Your task to perform on an android device: Empty the shopping cart on walmart.com. Add "logitech g502" to the cart on walmart.com Image 0: 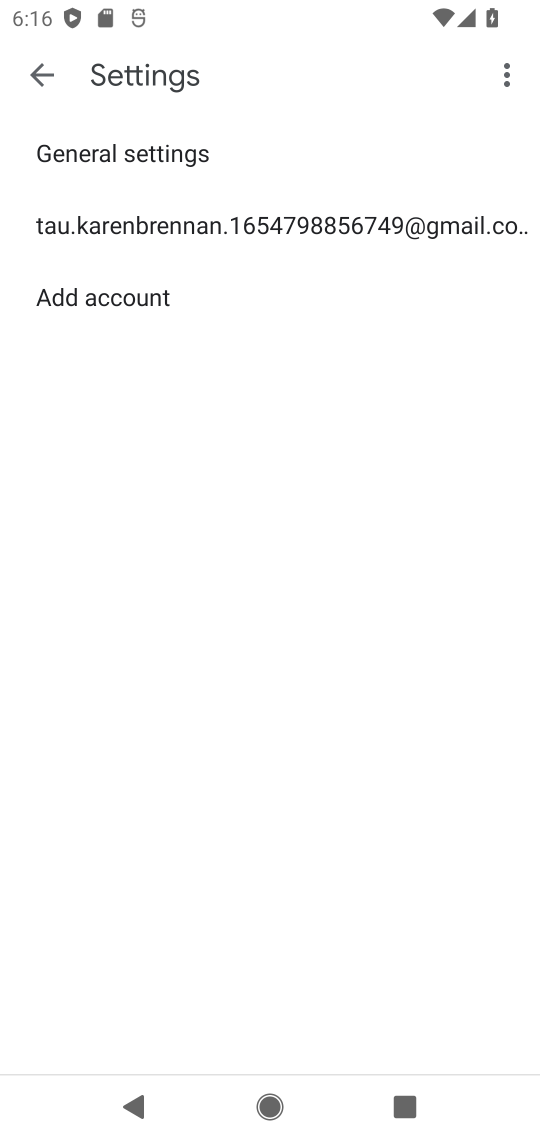
Step 0: press home button
Your task to perform on an android device: Empty the shopping cart on walmart.com. Add "logitech g502" to the cart on walmart.com Image 1: 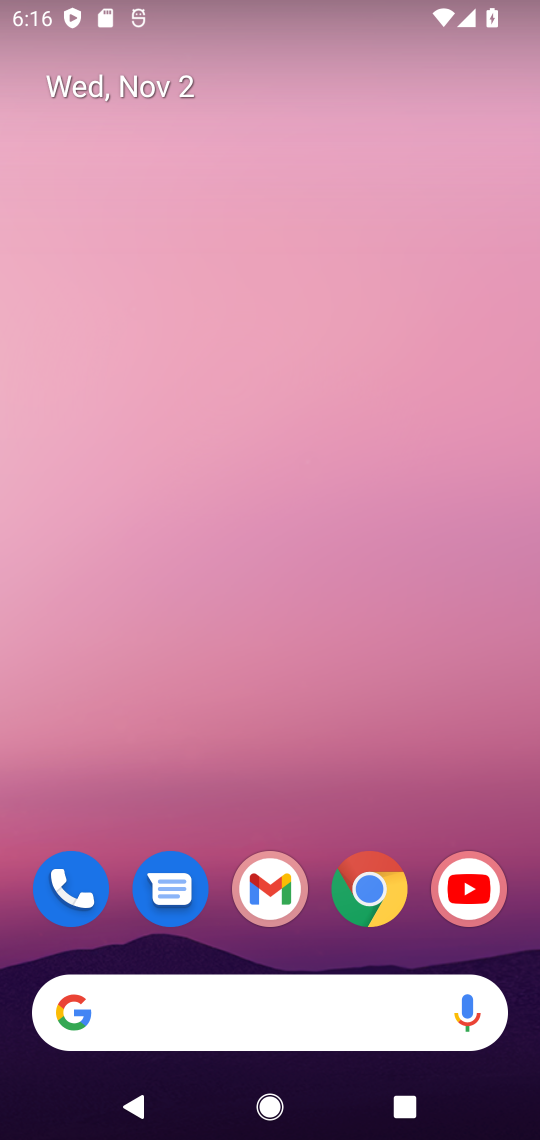
Step 1: click (379, 886)
Your task to perform on an android device: Empty the shopping cart on walmart.com. Add "logitech g502" to the cart on walmart.com Image 2: 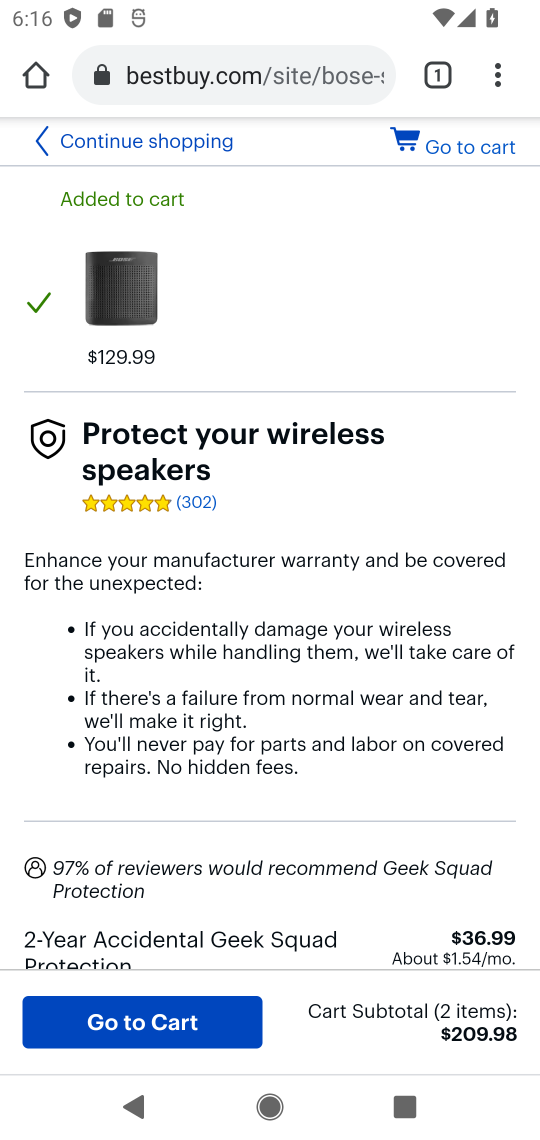
Step 2: click (200, 63)
Your task to perform on an android device: Empty the shopping cart on walmart.com. Add "logitech g502" to the cart on walmart.com Image 3: 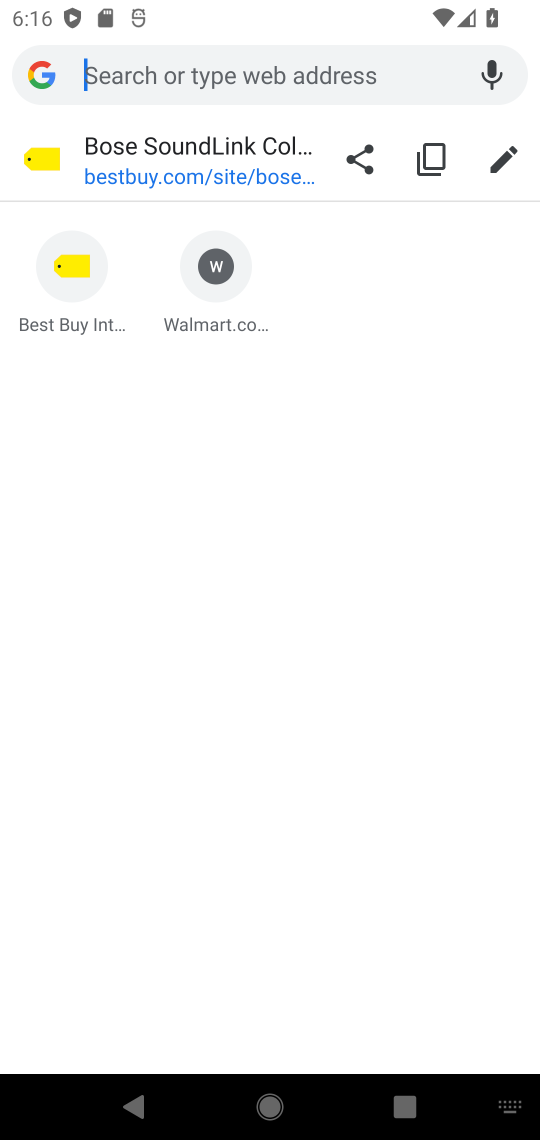
Step 3: type "walmart.com"
Your task to perform on an android device: Empty the shopping cart on walmart.com. Add "logitech g502" to the cart on walmart.com Image 4: 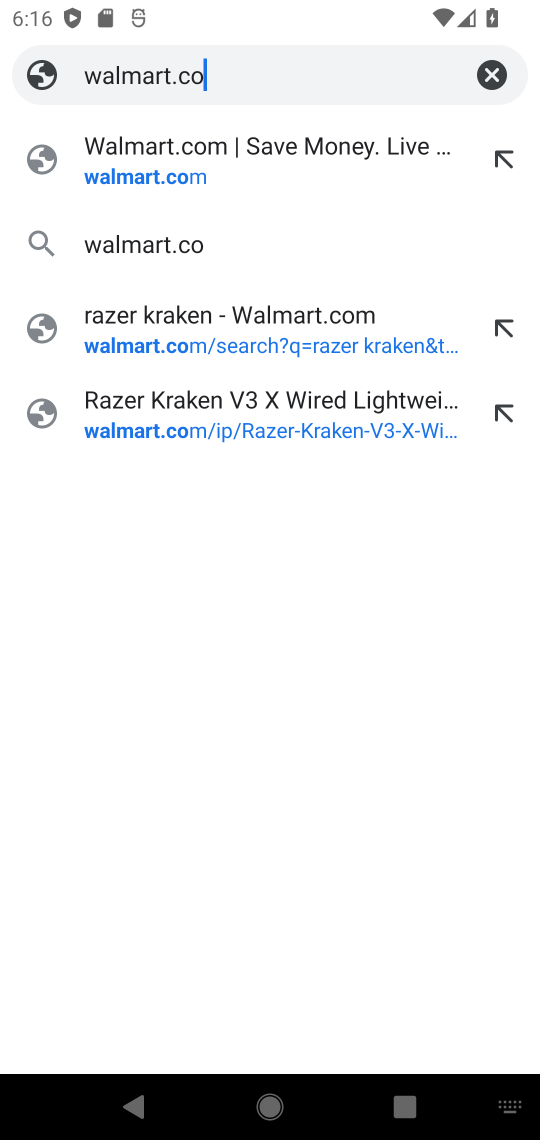
Step 4: press enter
Your task to perform on an android device: Empty the shopping cart on walmart.com. Add "logitech g502" to the cart on walmart.com Image 5: 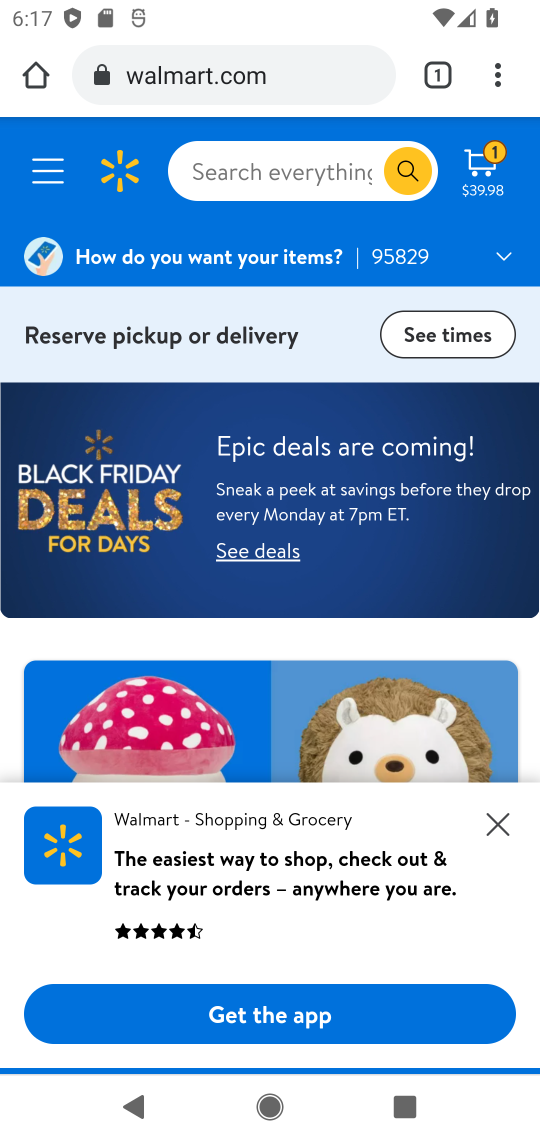
Step 5: click (480, 179)
Your task to perform on an android device: Empty the shopping cart on walmart.com. Add "logitech g502" to the cart on walmart.com Image 6: 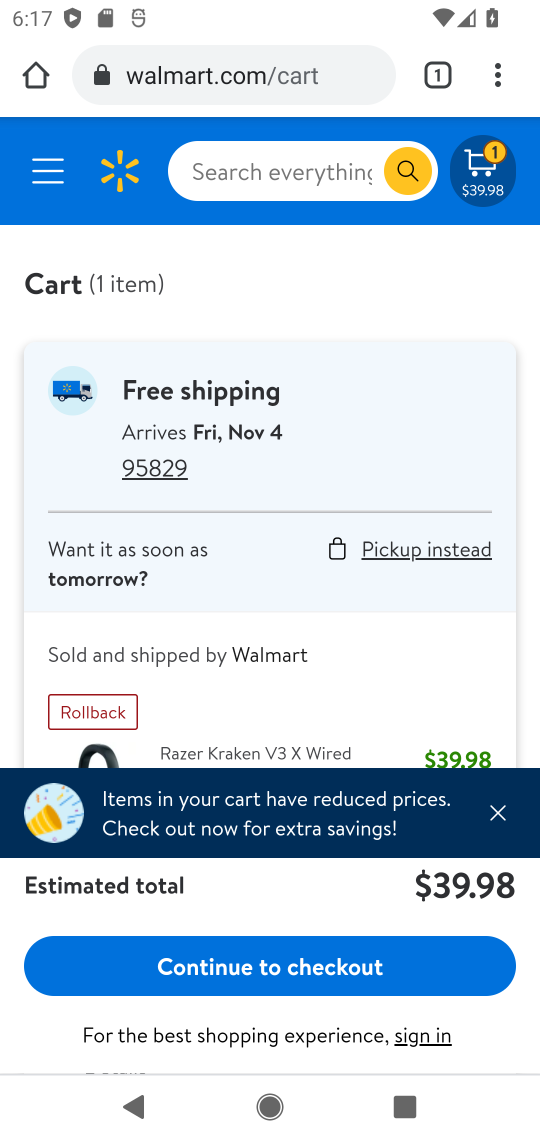
Step 6: click (504, 816)
Your task to perform on an android device: Empty the shopping cart on walmart.com. Add "logitech g502" to the cart on walmart.com Image 7: 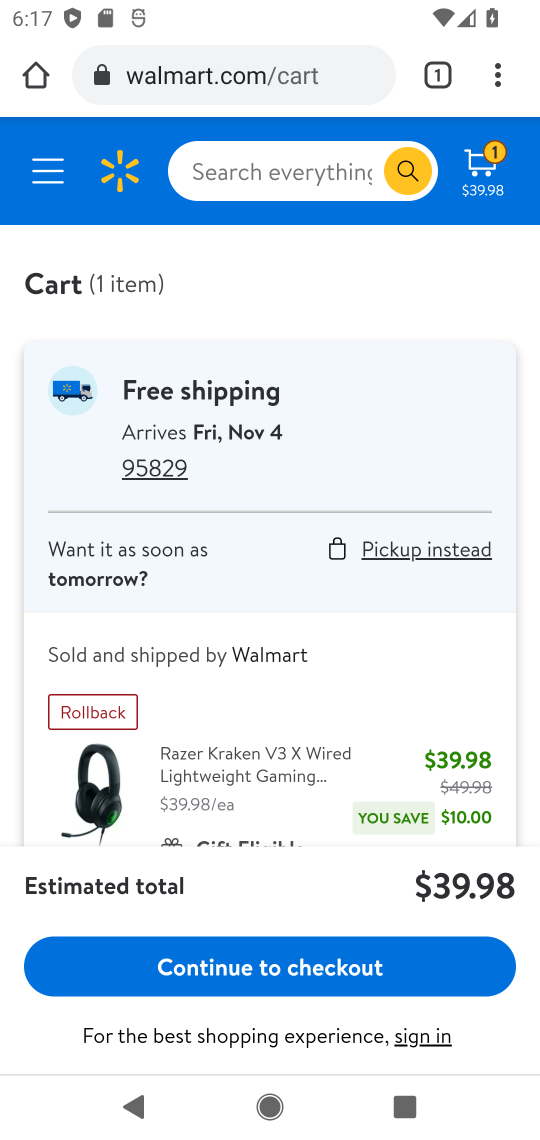
Step 7: drag from (314, 731) to (322, 332)
Your task to perform on an android device: Empty the shopping cart on walmart.com. Add "logitech g502" to the cart on walmart.com Image 8: 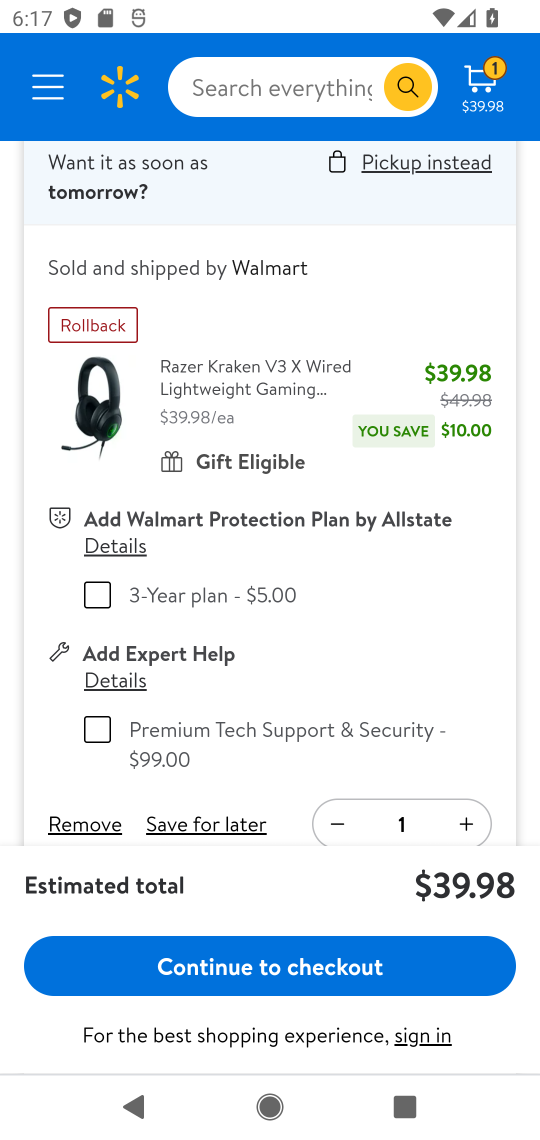
Step 8: drag from (394, 718) to (389, 479)
Your task to perform on an android device: Empty the shopping cart on walmart.com. Add "logitech g502" to the cart on walmart.com Image 9: 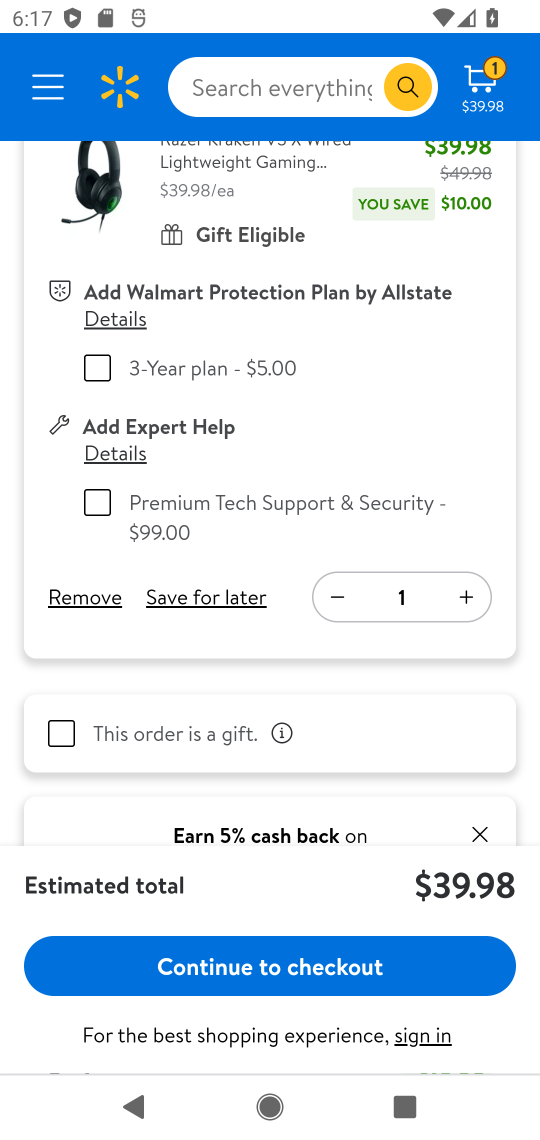
Step 9: click (83, 591)
Your task to perform on an android device: Empty the shopping cart on walmart.com. Add "logitech g502" to the cart on walmart.com Image 10: 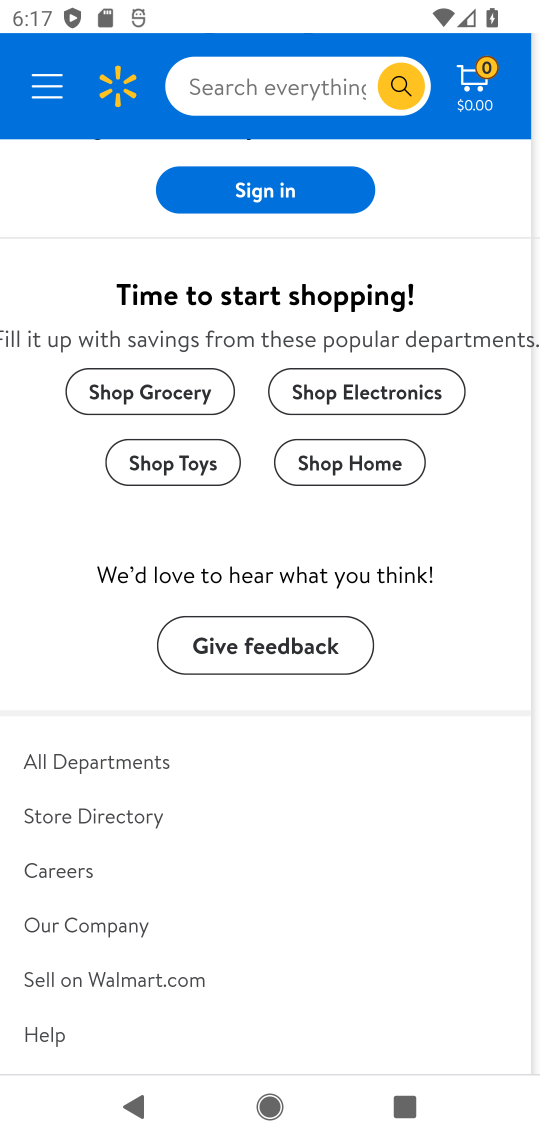
Step 10: click (300, 90)
Your task to perform on an android device: Empty the shopping cart on walmart.com. Add "logitech g502" to the cart on walmart.com Image 11: 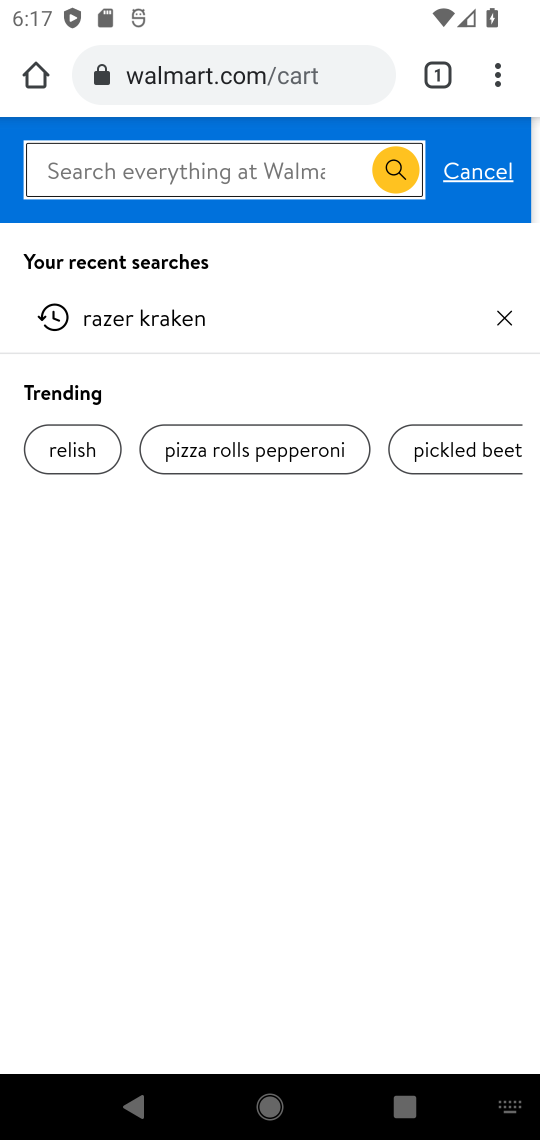
Step 11: type "logitech g502"
Your task to perform on an android device: Empty the shopping cart on walmart.com. Add "logitech g502" to the cart on walmart.com Image 12: 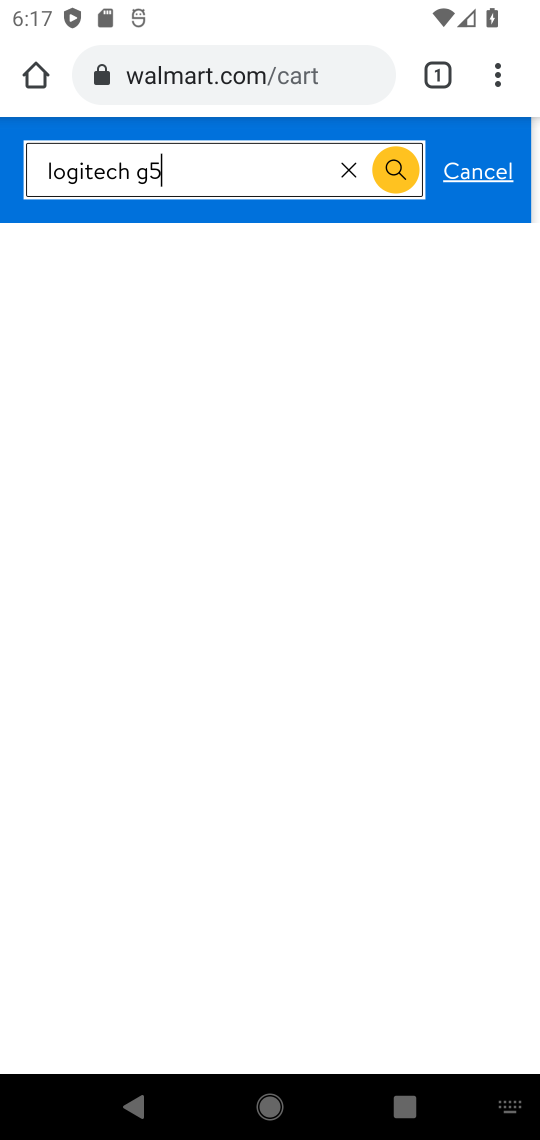
Step 12: press enter
Your task to perform on an android device: Empty the shopping cart on walmart.com. Add "logitech g502" to the cart on walmart.com Image 13: 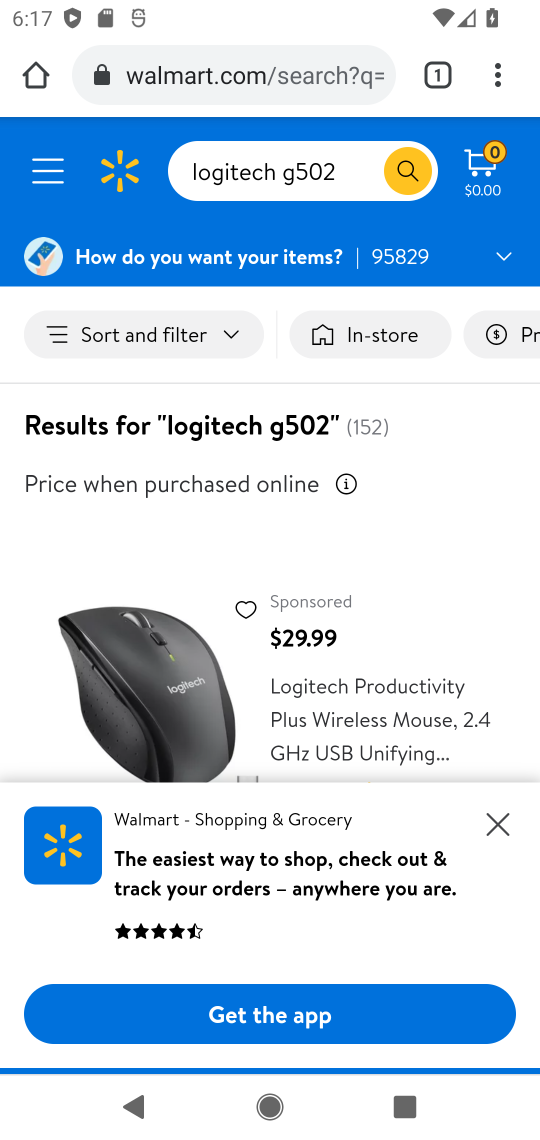
Step 13: drag from (116, 663) to (143, 352)
Your task to perform on an android device: Empty the shopping cart on walmart.com. Add "logitech g502" to the cart on walmart.com Image 14: 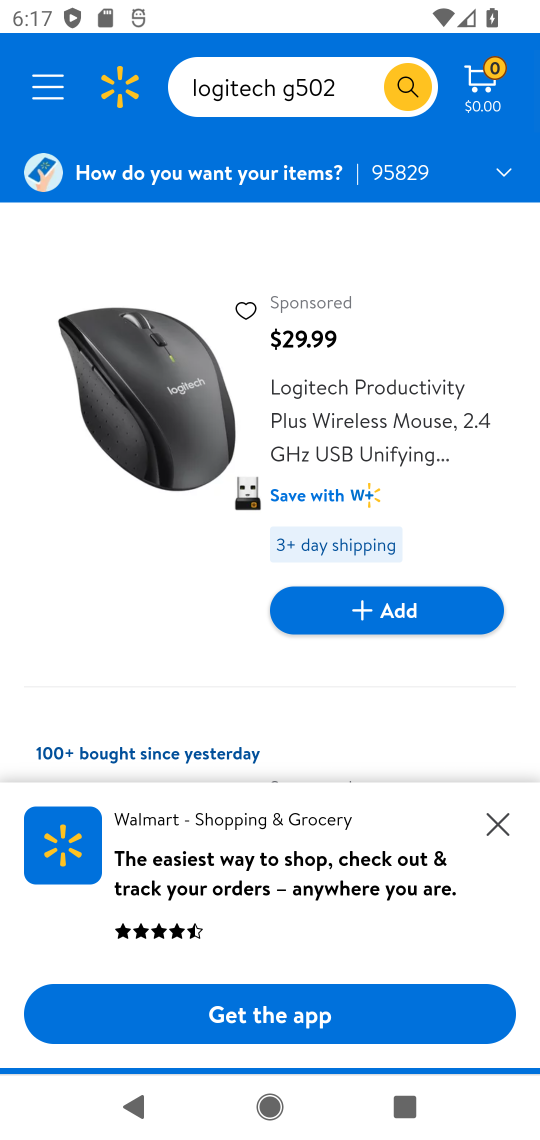
Step 14: drag from (117, 692) to (101, 351)
Your task to perform on an android device: Empty the shopping cart on walmart.com. Add "logitech g502" to the cart on walmart.com Image 15: 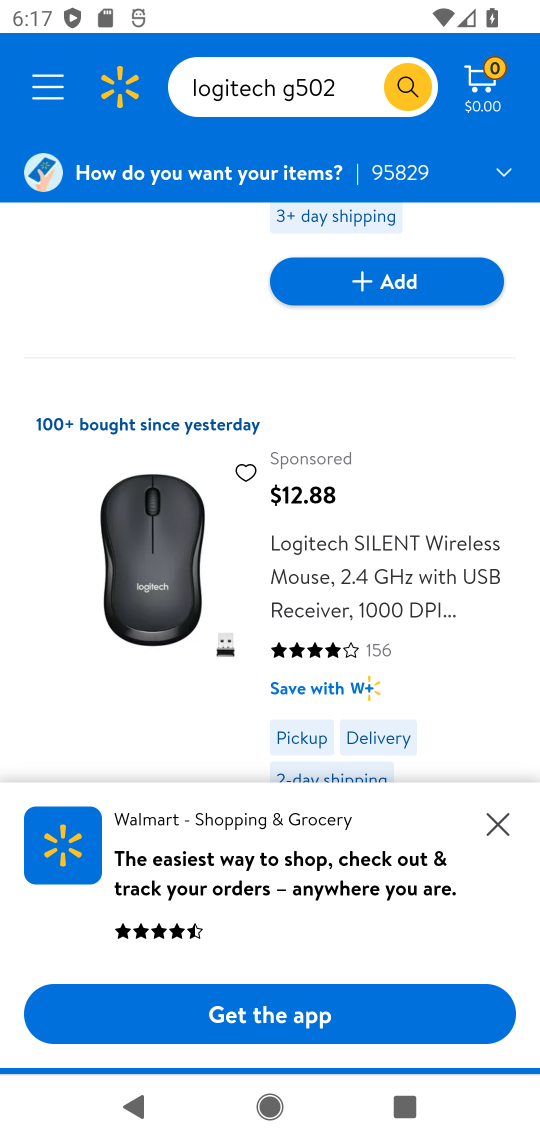
Step 15: drag from (118, 641) to (150, 447)
Your task to perform on an android device: Empty the shopping cart on walmart.com. Add "logitech g502" to the cart on walmart.com Image 16: 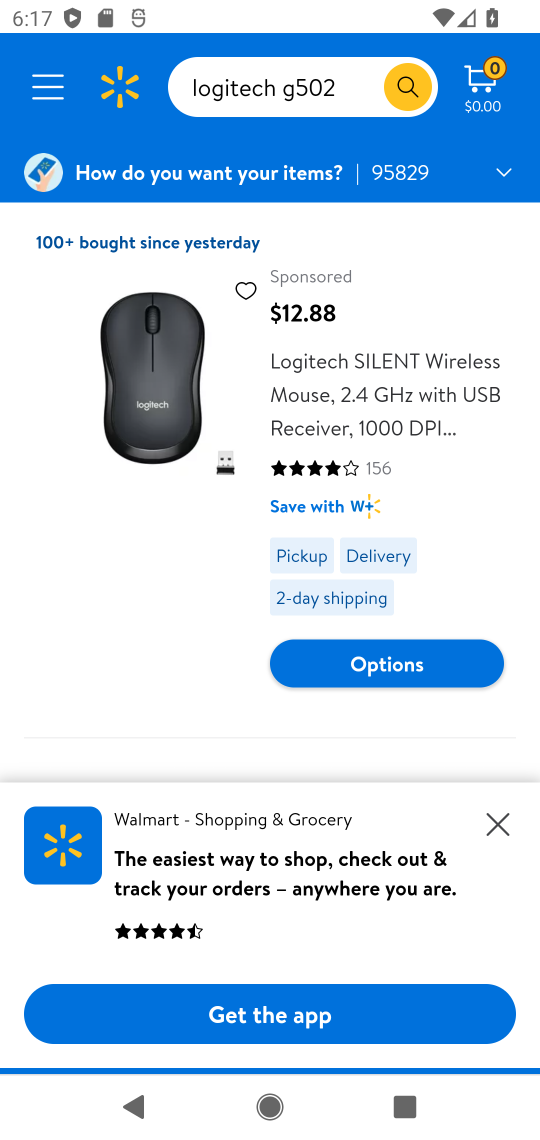
Step 16: drag from (103, 553) to (156, 304)
Your task to perform on an android device: Empty the shopping cart on walmart.com. Add "logitech g502" to the cart on walmart.com Image 17: 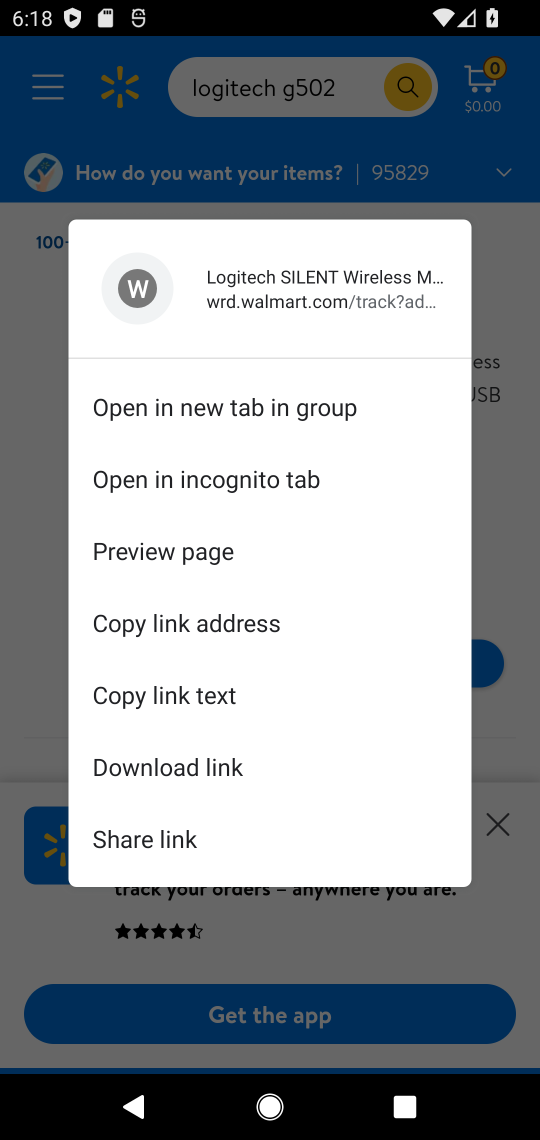
Step 17: click (505, 826)
Your task to perform on an android device: Empty the shopping cart on walmart.com. Add "logitech g502" to the cart on walmart.com Image 18: 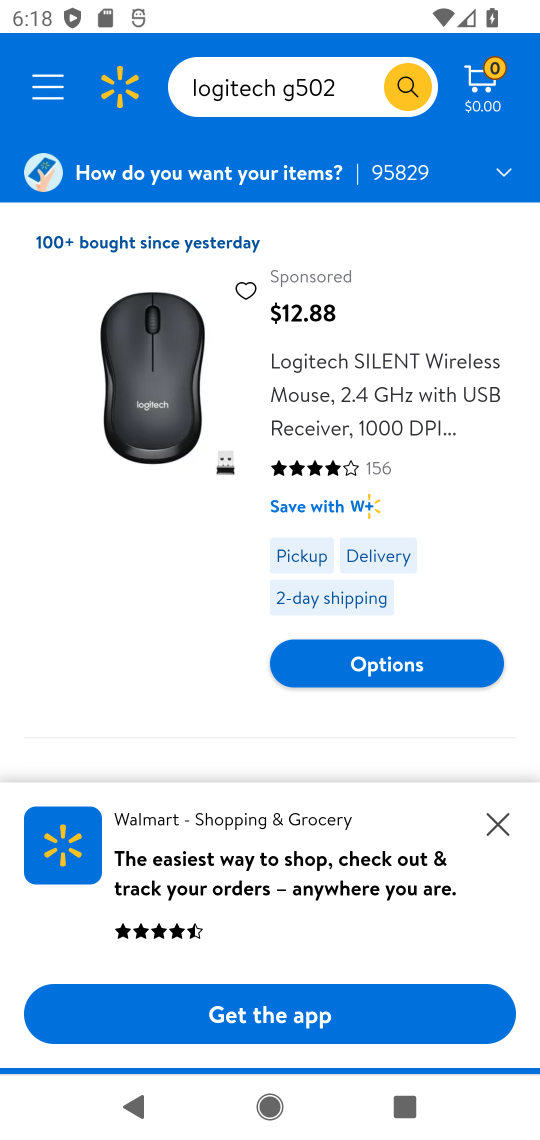
Step 18: click (505, 826)
Your task to perform on an android device: Empty the shopping cart on walmart.com. Add "logitech g502" to the cart on walmart.com Image 19: 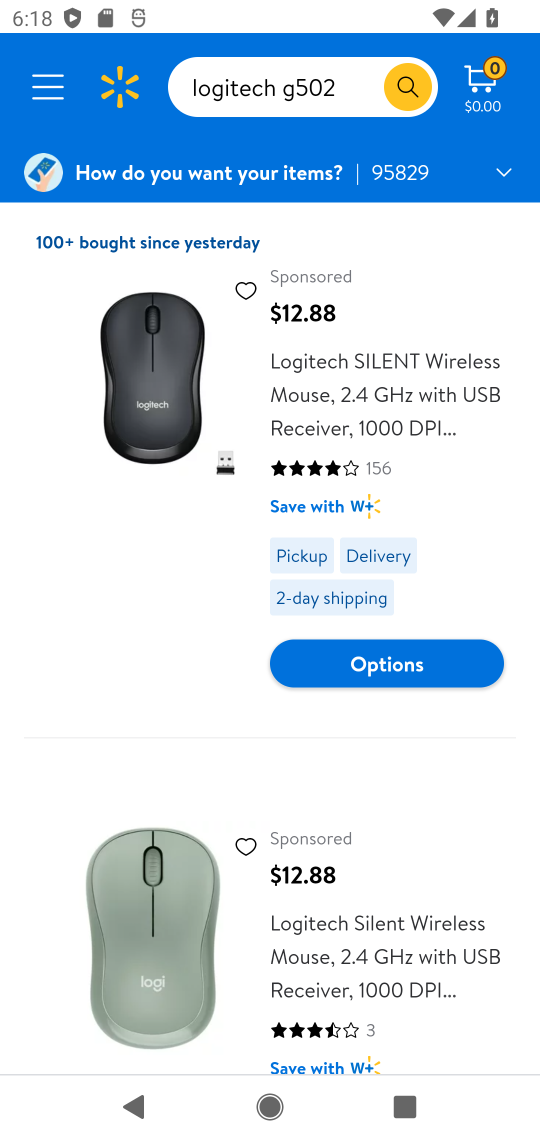
Step 19: drag from (153, 922) to (187, 367)
Your task to perform on an android device: Empty the shopping cart on walmart.com. Add "logitech g502" to the cart on walmart.com Image 20: 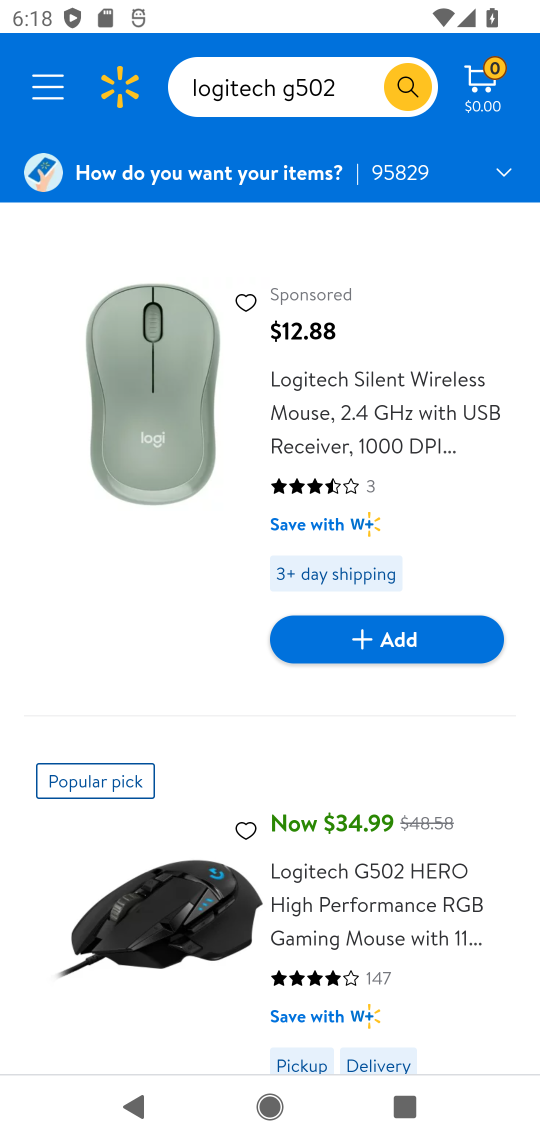
Step 20: click (92, 920)
Your task to perform on an android device: Empty the shopping cart on walmart.com. Add "logitech g502" to the cart on walmart.com Image 21: 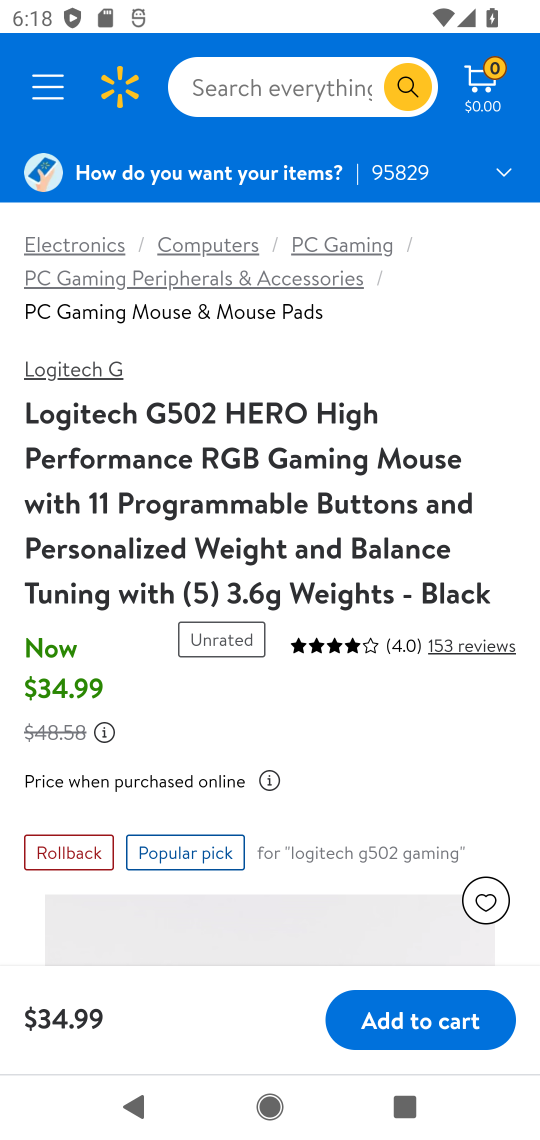
Step 21: click (426, 1027)
Your task to perform on an android device: Empty the shopping cart on walmart.com. Add "logitech g502" to the cart on walmart.com Image 22: 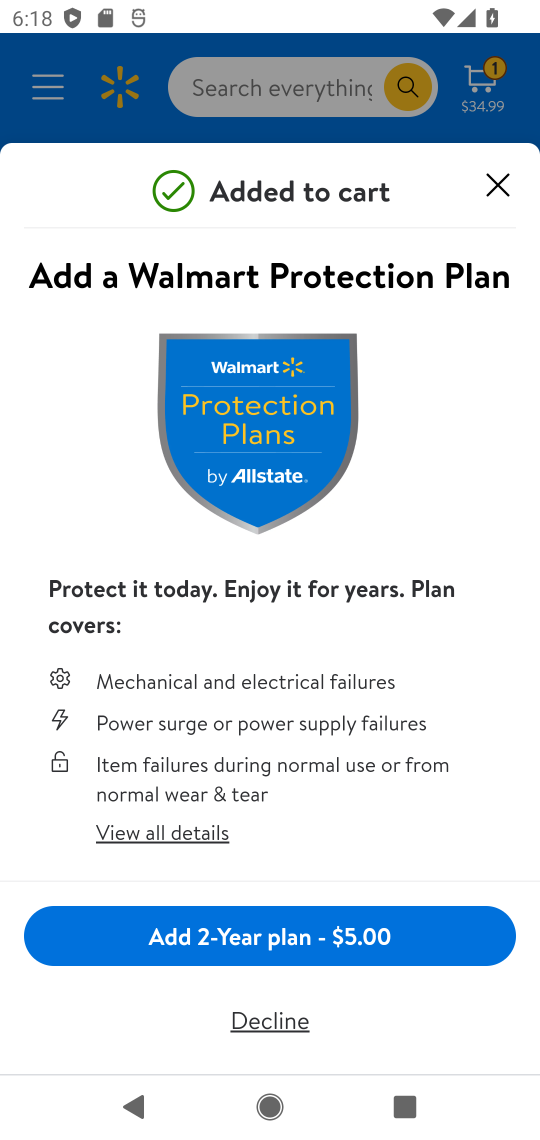
Step 22: click (498, 177)
Your task to perform on an android device: Empty the shopping cart on walmart.com. Add "logitech g502" to the cart on walmart.com Image 23: 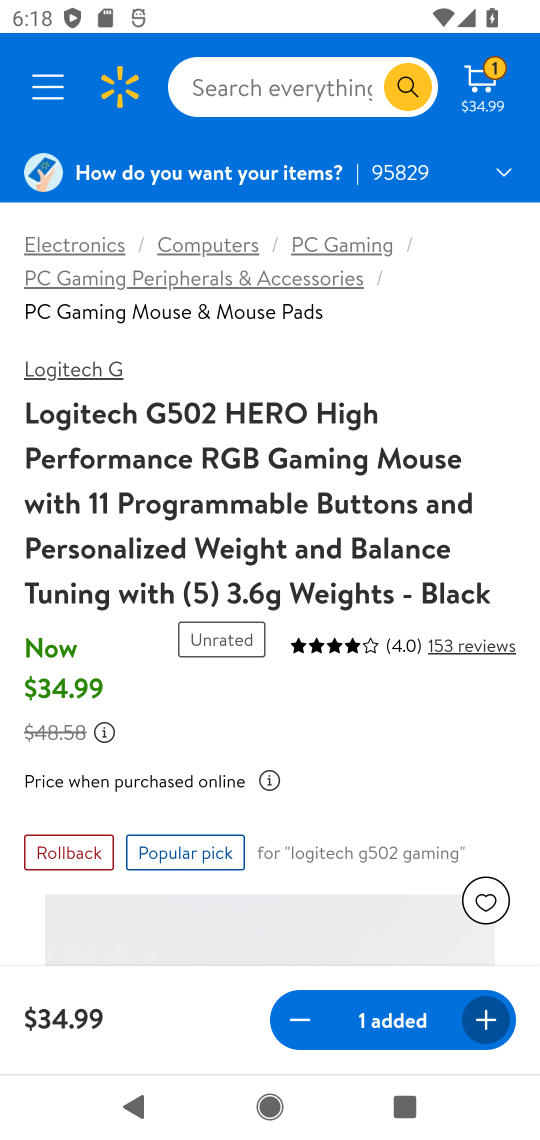
Step 23: task complete